Your task to perform on an android device: turn on wifi Image 0: 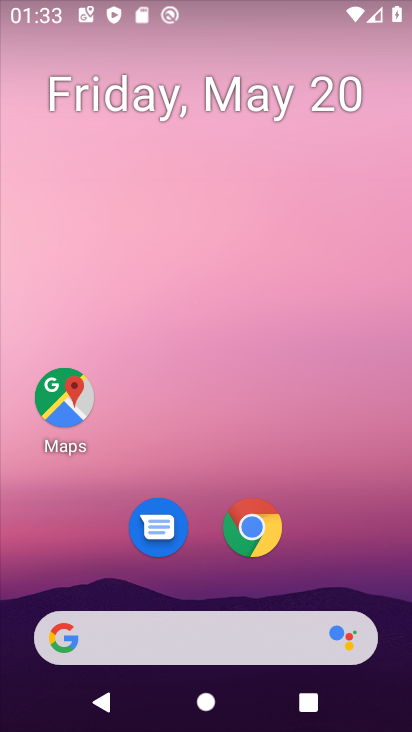
Step 0: drag from (158, 648) to (53, 21)
Your task to perform on an android device: turn on wifi Image 1: 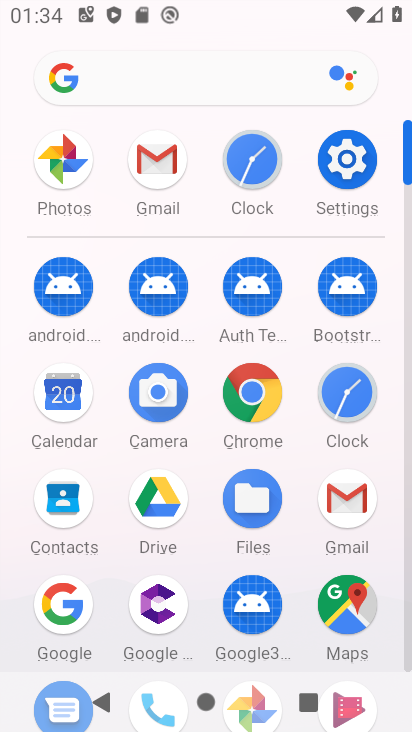
Step 1: click (357, 159)
Your task to perform on an android device: turn on wifi Image 2: 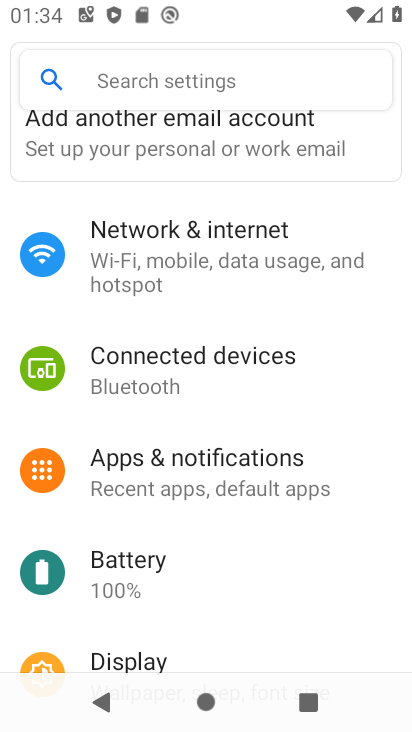
Step 2: click (227, 244)
Your task to perform on an android device: turn on wifi Image 3: 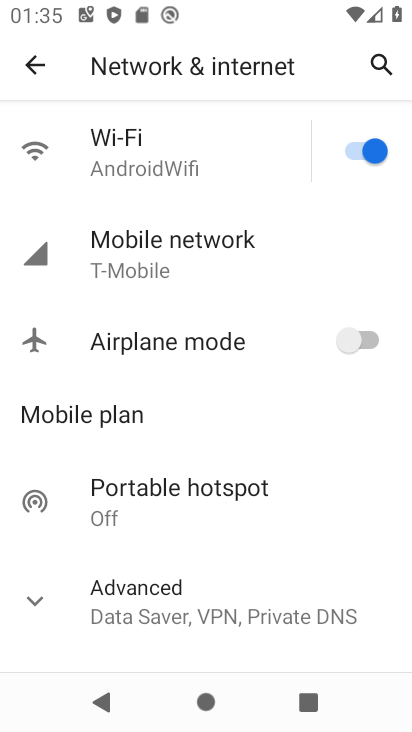
Step 3: task complete